Your task to perform on an android device: Go to location settings Image 0: 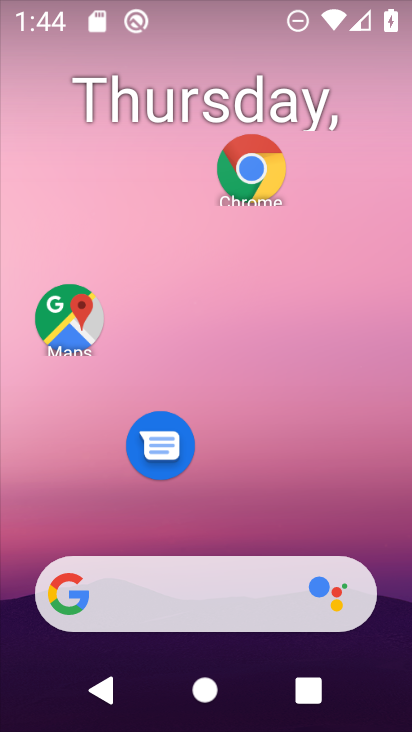
Step 0: drag from (290, 635) to (347, 57)
Your task to perform on an android device: Go to location settings Image 1: 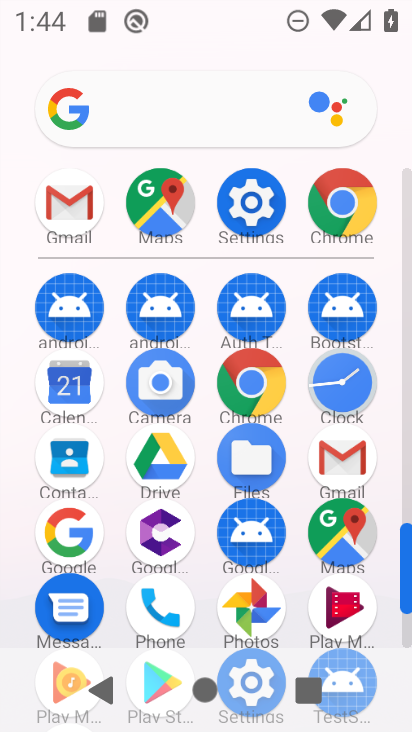
Step 1: click (268, 205)
Your task to perform on an android device: Go to location settings Image 2: 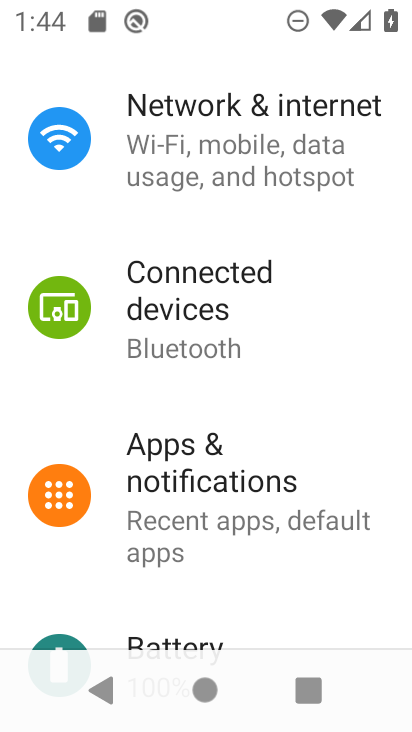
Step 2: drag from (269, 204) to (280, 494)
Your task to perform on an android device: Go to location settings Image 3: 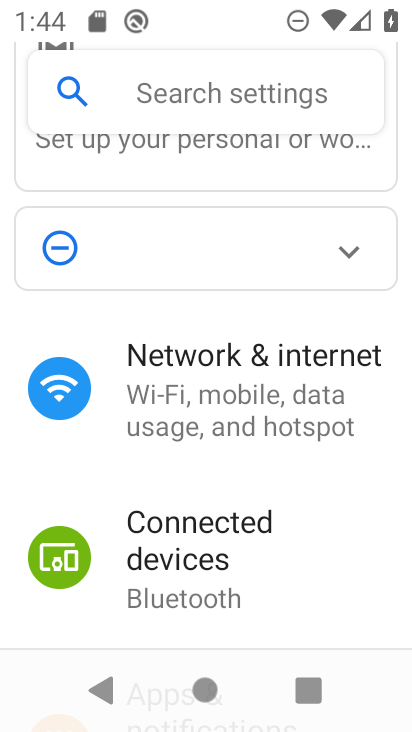
Step 3: click (158, 97)
Your task to perform on an android device: Go to location settings Image 4: 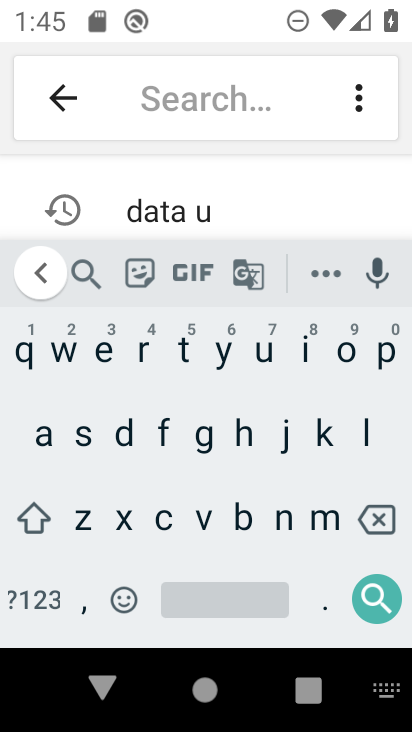
Step 4: click (363, 431)
Your task to perform on an android device: Go to location settings Image 5: 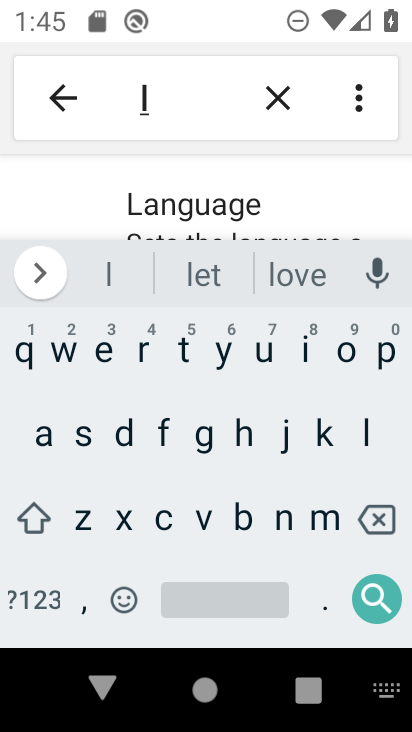
Step 5: click (343, 359)
Your task to perform on an android device: Go to location settings Image 6: 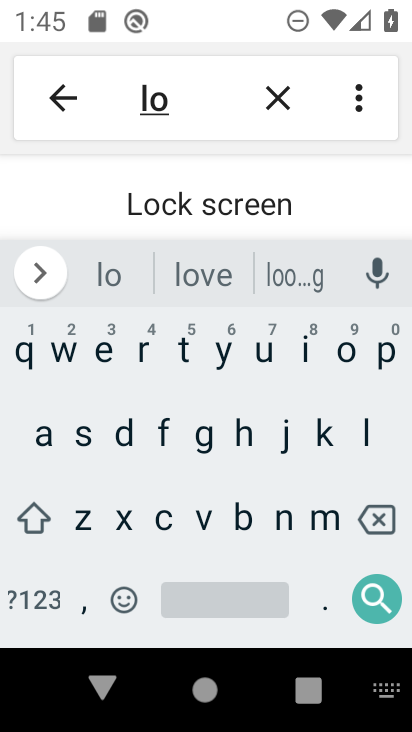
Step 6: click (162, 526)
Your task to perform on an android device: Go to location settings Image 7: 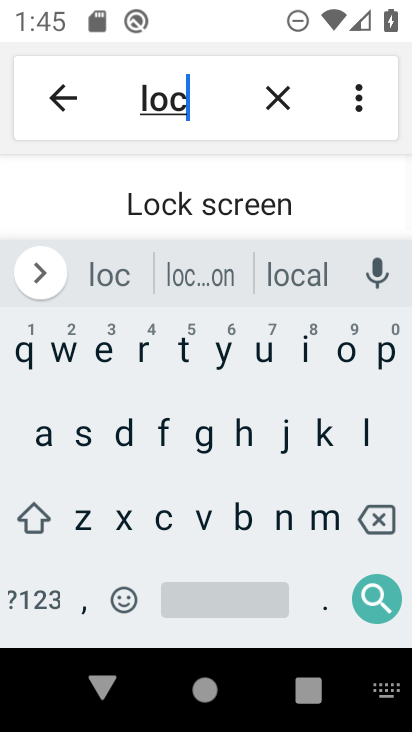
Step 7: click (43, 438)
Your task to perform on an android device: Go to location settings Image 8: 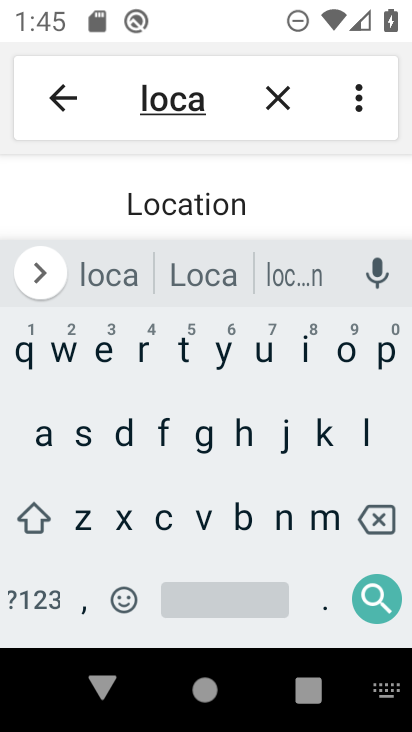
Step 8: click (177, 201)
Your task to perform on an android device: Go to location settings Image 9: 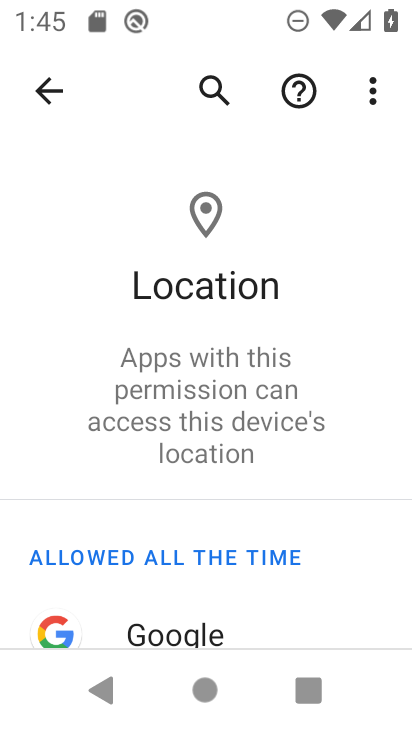
Step 9: task complete